Your task to perform on an android device: see sites visited before in the chrome app Image 0: 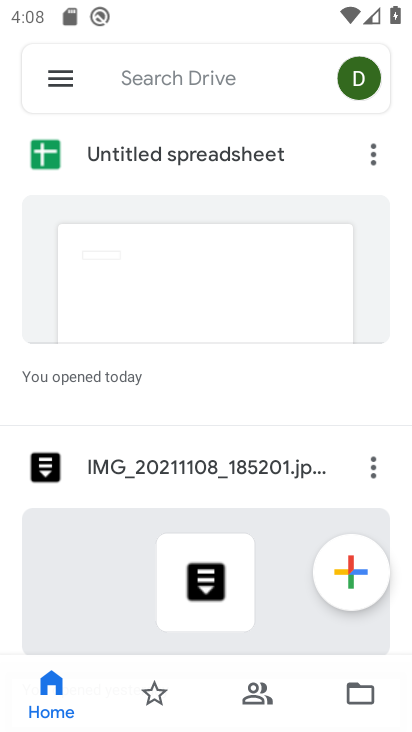
Step 0: press home button
Your task to perform on an android device: see sites visited before in the chrome app Image 1: 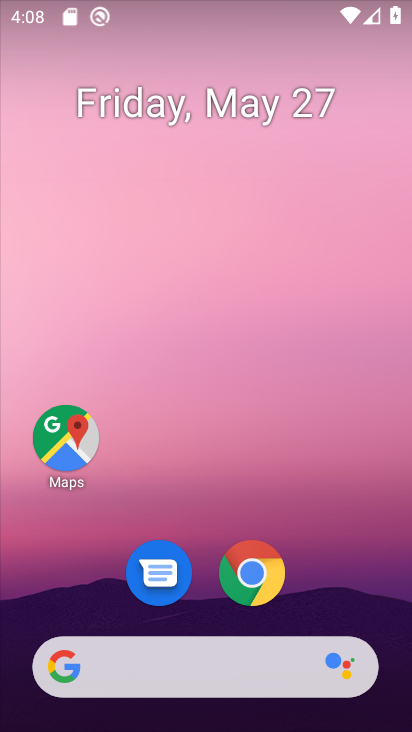
Step 1: click (266, 562)
Your task to perform on an android device: see sites visited before in the chrome app Image 2: 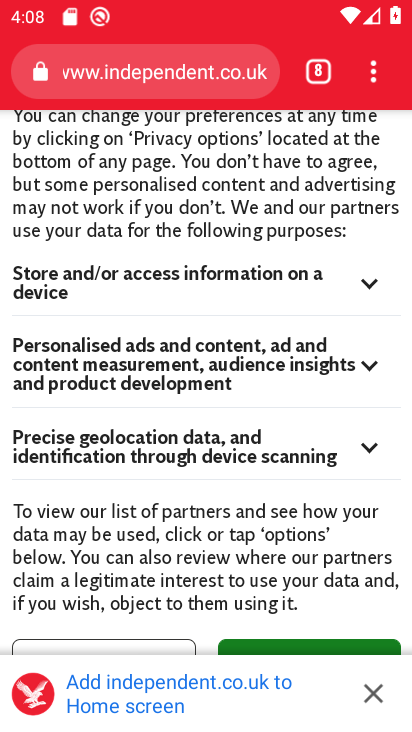
Step 2: click (369, 76)
Your task to perform on an android device: see sites visited before in the chrome app Image 3: 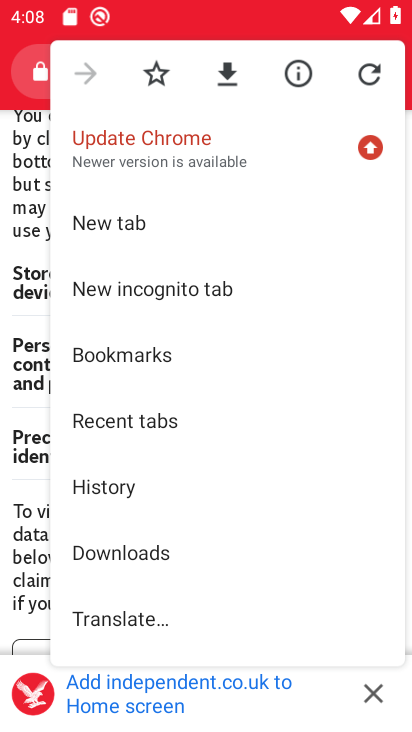
Step 3: click (121, 412)
Your task to perform on an android device: see sites visited before in the chrome app Image 4: 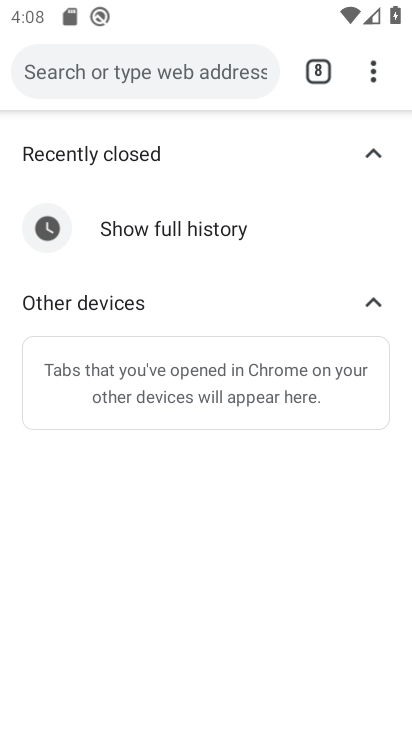
Step 4: task complete